Your task to perform on an android device: Open privacy settings Image 0: 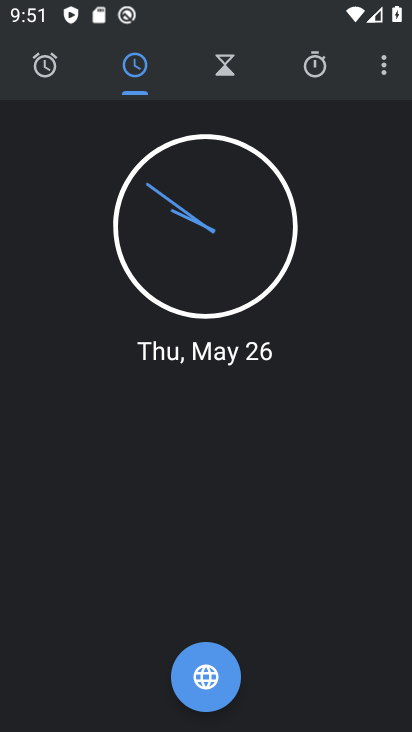
Step 0: press home button
Your task to perform on an android device: Open privacy settings Image 1: 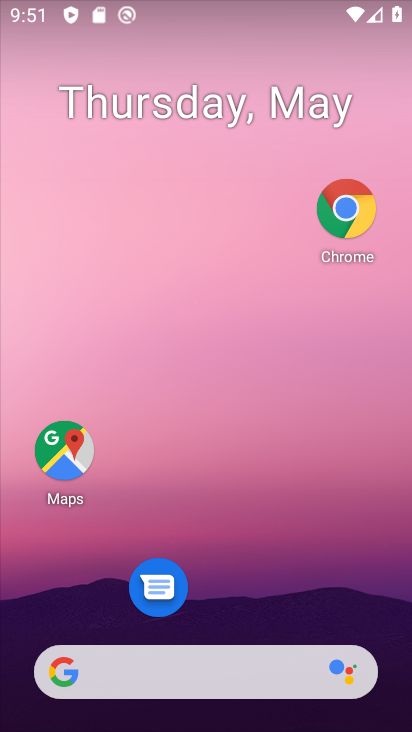
Step 1: drag from (237, 604) to (88, 231)
Your task to perform on an android device: Open privacy settings Image 2: 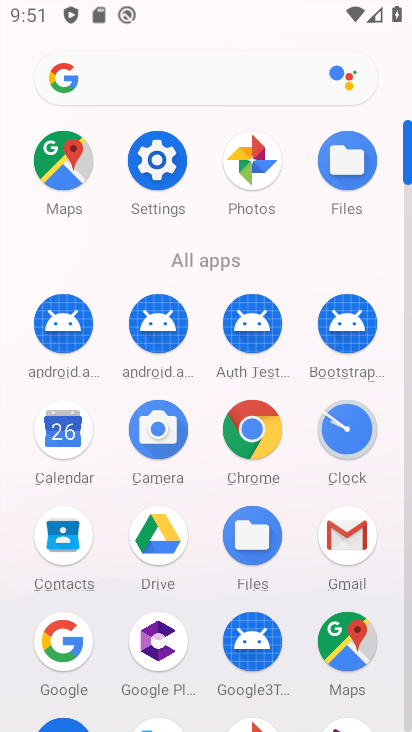
Step 2: click (168, 151)
Your task to perform on an android device: Open privacy settings Image 3: 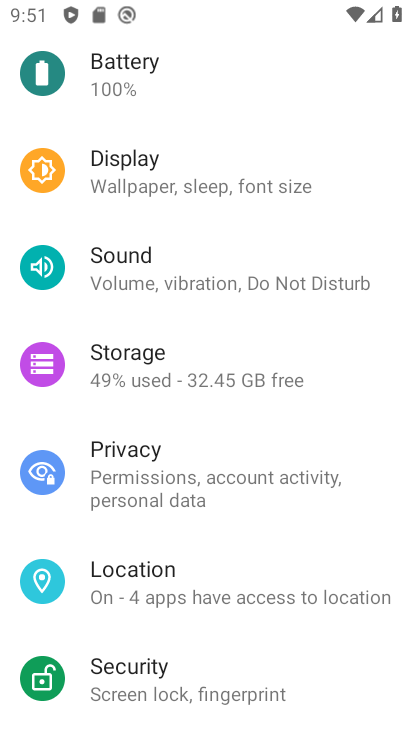
Step 3: click (145, 457)
Your task to perform on an android device: Open privacy settings Image 4: 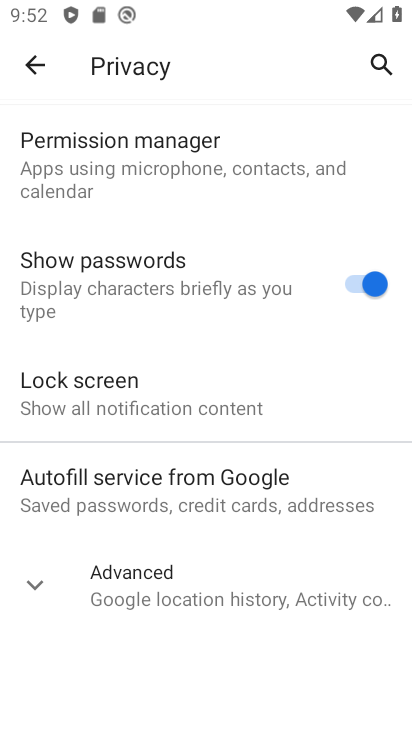
Step 4: task complete